Your task to perform on an android device: star an email in the gmail app Image 0: 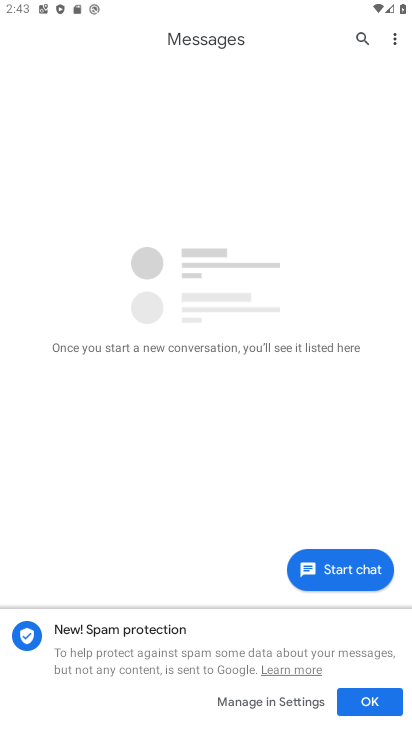
Step 0: press home button
Your task to perform on an android device: star an email in the gmail app Image 1: 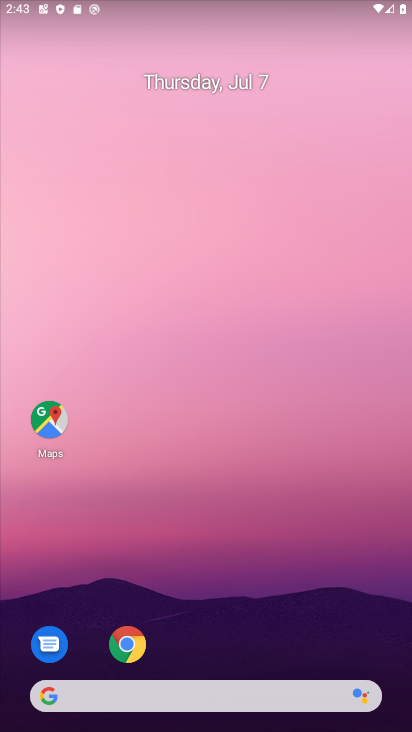
Step 1: drag from (224, 646) to (245, 194)
Your task to perform on an android device: star an email in the gmail app Image 2: 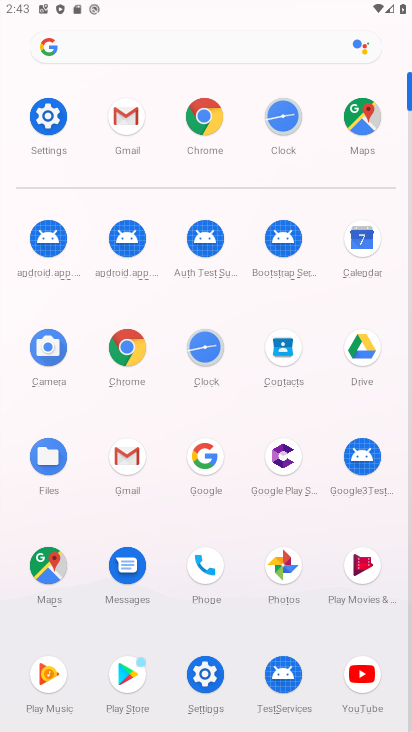
Step 2: click (129, 126)
Your task to perform on an android device: star an email in the gmail app Image 3: 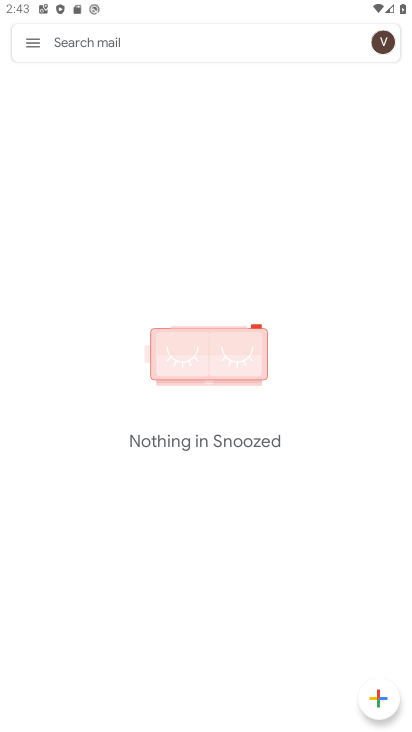
Step 3: click (35, 39)
Your task to perform on an android device: star an email in the gmail app Image 4: 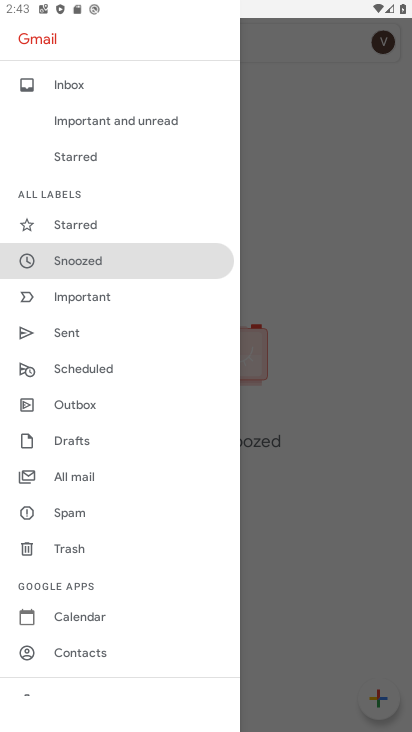
Step 4: click (71, 477)
Your task to perform on an android device: star an email in the gmail app Image 5: 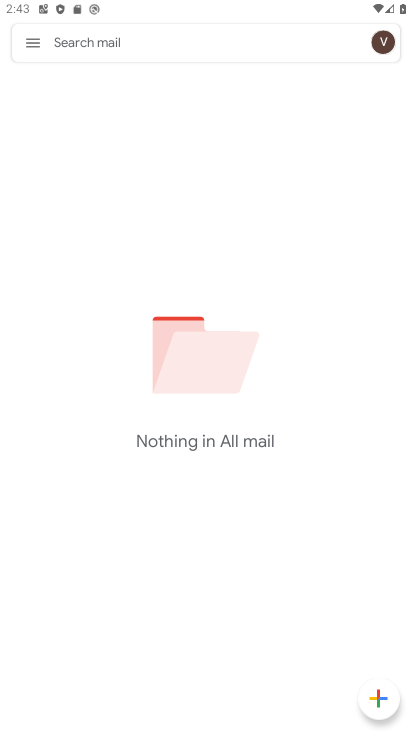
Step 5: task complete